Your task to perform on an android device: Open display settings Image 0: 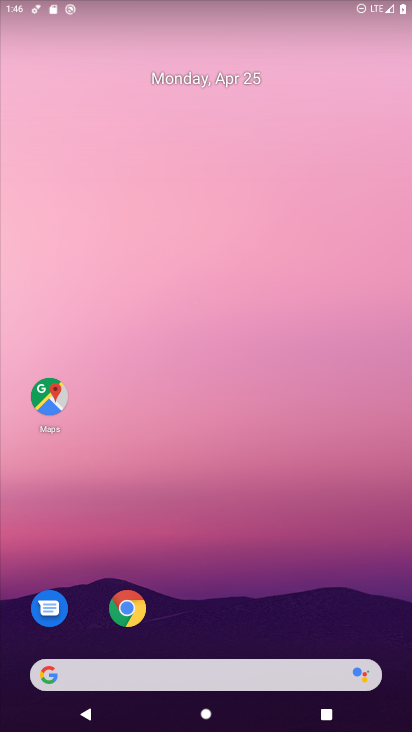
Step 0: drag from (373, 633) to (270, 70)
Your task to perform on an android device: Open display settings Image 1: 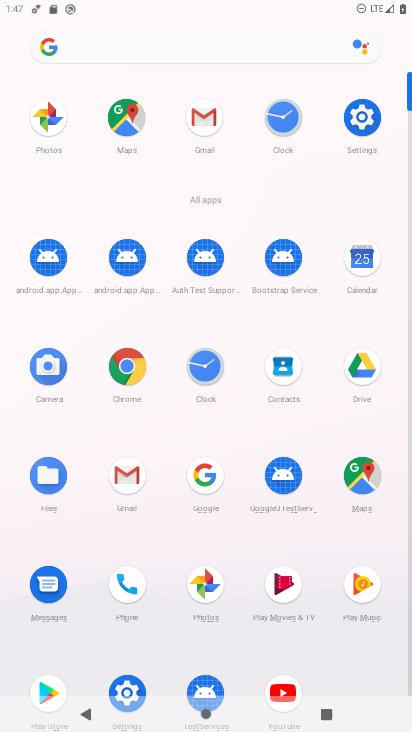
Step 1: click (127, 687)
Your task to perform on an android device: Open display settings Image 2: 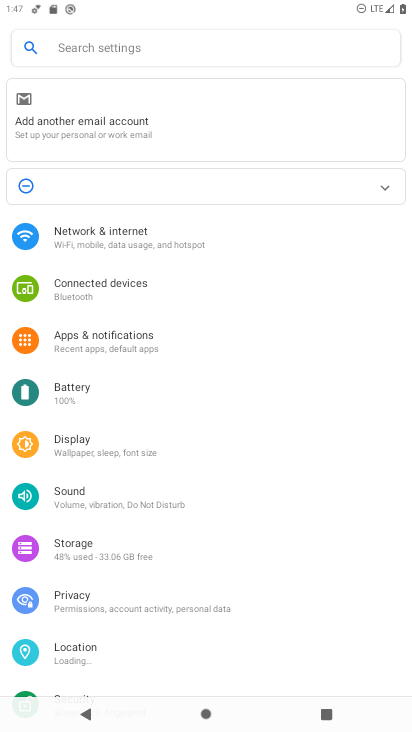
Step 2: click (123, 446)
Your task to perform on an android device: Open display settings Image 3: 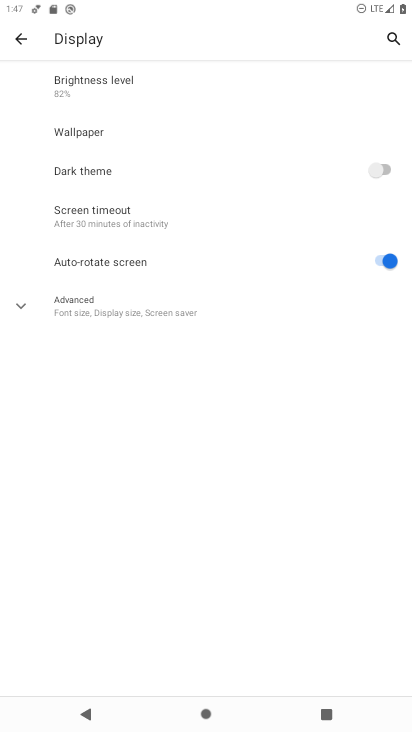
Step 3: task complete